Your task to perform on an android device: toggle airplane mode Image 0: 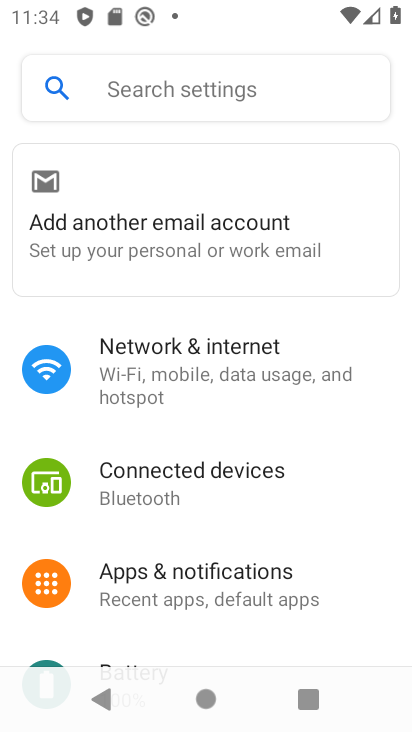
Step 0: press home button
Your task to perform on an android device: toggle airplane mode Image 1: 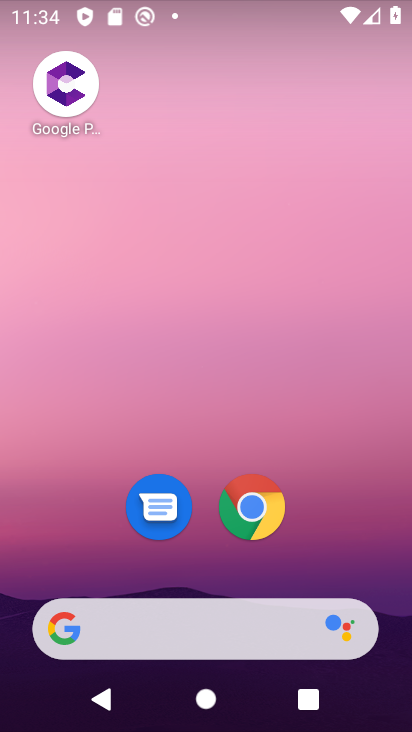
Step 1: drag from (263, 485) to (313, 54)
Your task to perform on an android device: toggle airplane mode Image 2: 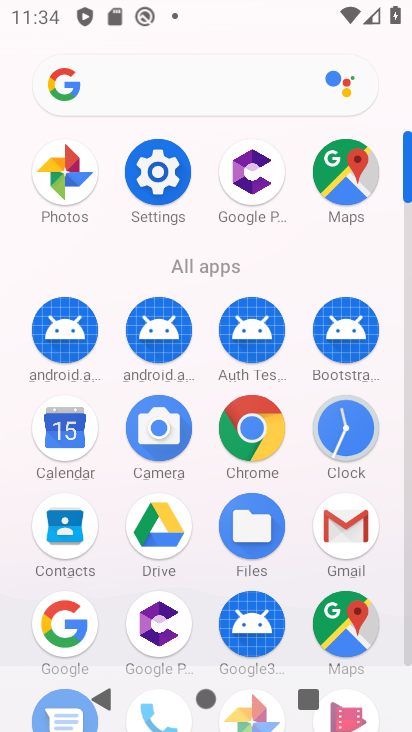
Step 2: click (162, 178)
Your task to perform on an android device: toggle airplane mode Image 3: 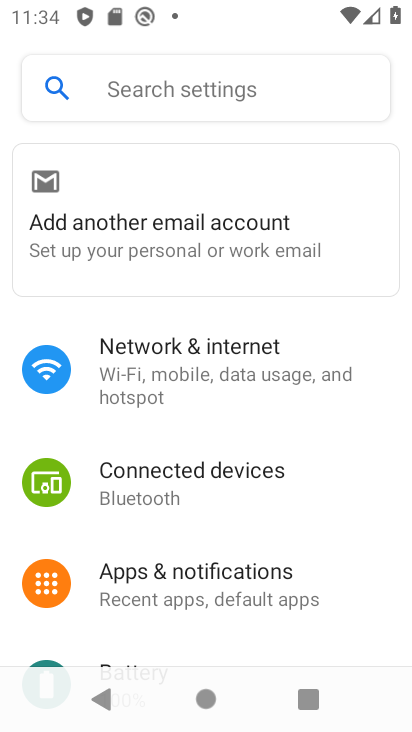
Step 3: click (244, 355)
Your task to perform on an android device: toggle airplane mode Image 4: 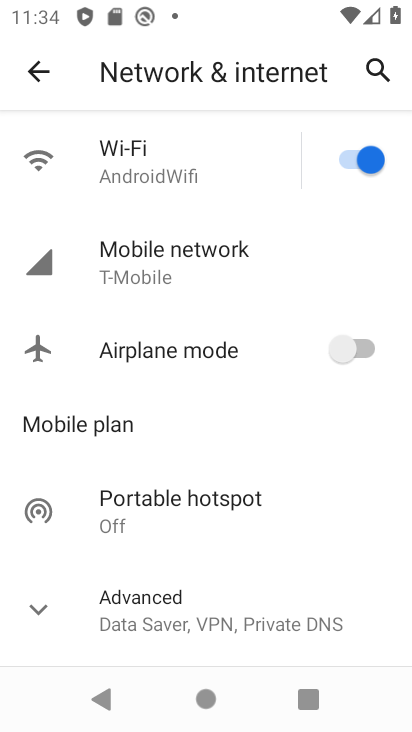
Step 4: click (334, 344)
Your task to perform on an android device: toggle airplane mode Image 5: 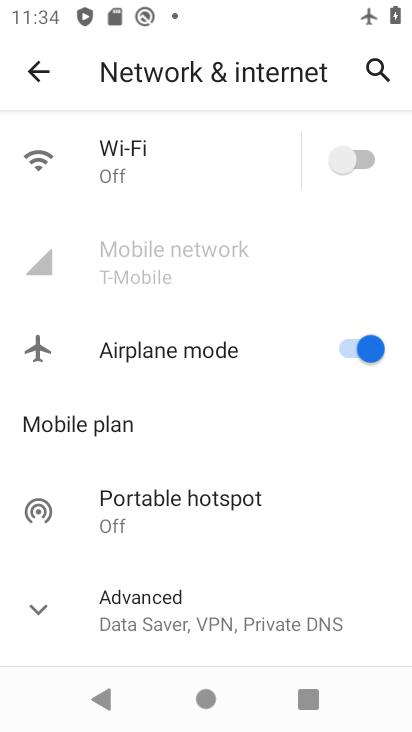
Step 5: task complete